Your task to perform on an android device: toggle data saver in the chrome app Image 0: 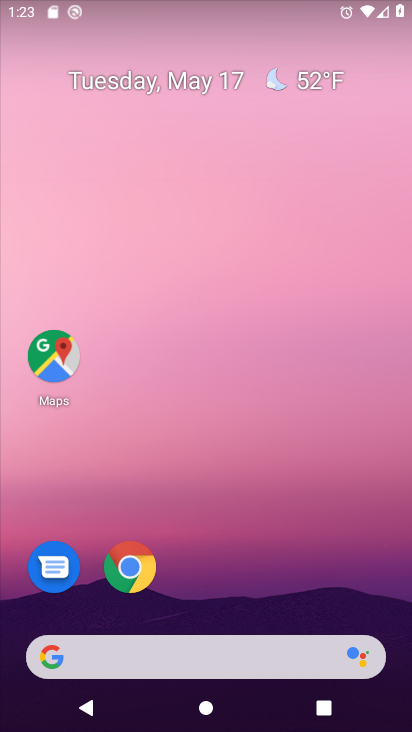
Step 0: click (138, 566)
Your task to perform on an android device: toggle data saver in the chrome app Image 1: 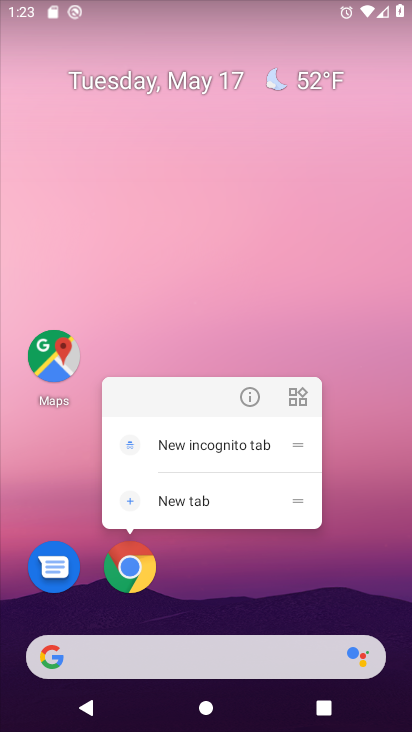
Step 1: click (118, 558)
Your task to perform on an android device: toggle data saver in the chrome app Image 2: 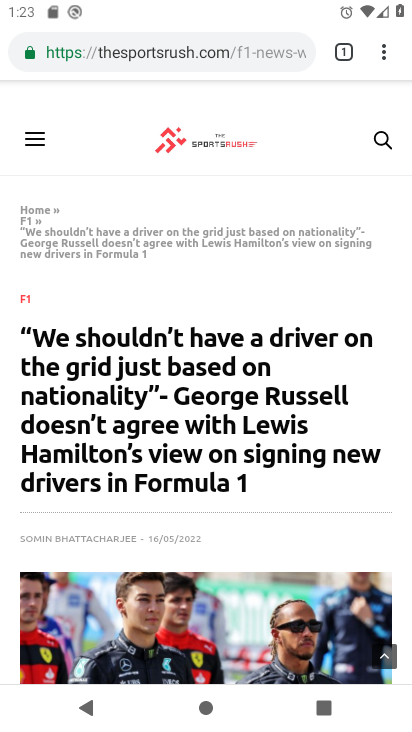
Step 2: click (385, 64)
Your task to perform on an android device: toggle data saver in the chrome app Image 3: 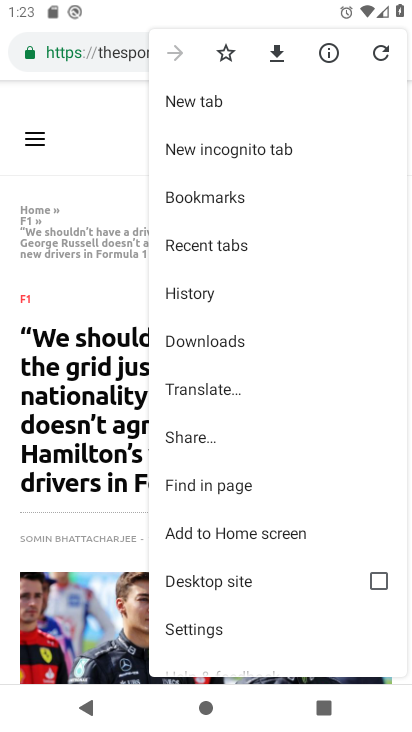
Step 3: click (194, 637)
Your task to perform on an android device: toggle data saver in the chrome app Image 4: 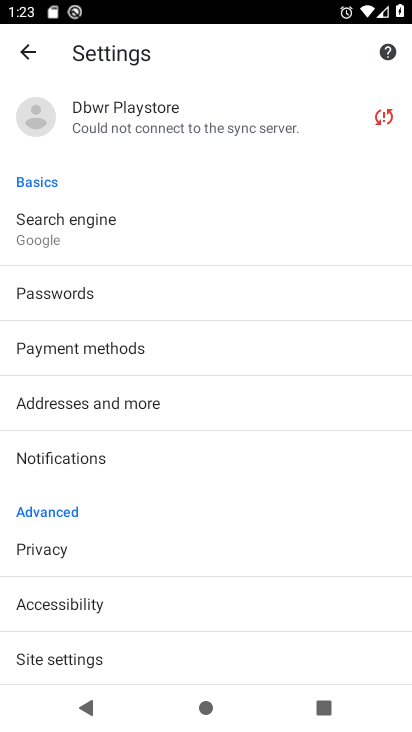
Step 4: drag from (82, 631) to (148, 264)
Your task to perform on an android device: toggle data saver in the chrome app Image 5: 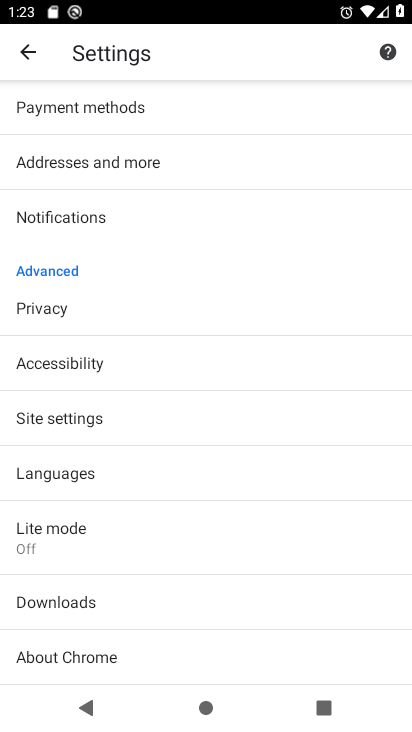
Step 5: click (53, 539)
Your task to perform on an android device: toggle data saver in the chrome app Image 6: 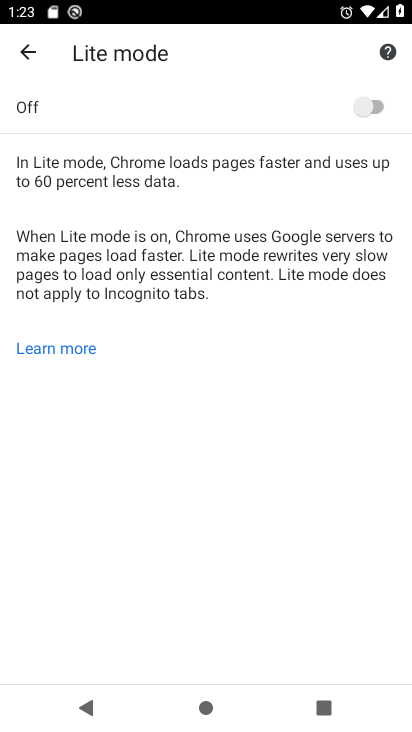
Step 6: click (376, 112)
Your task to perform on an android device: toggle data saver in the chrome app Image 7: 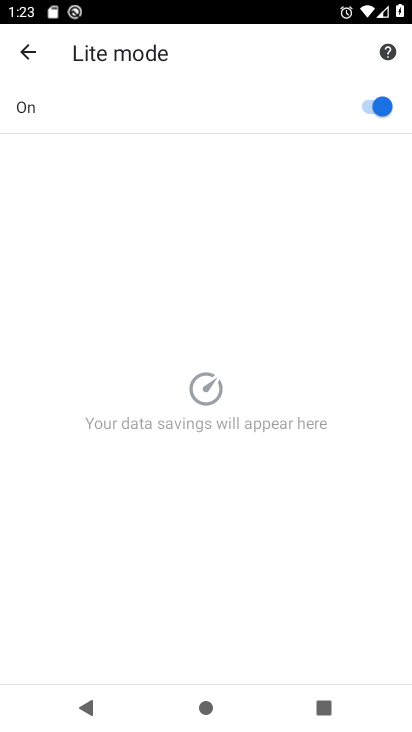
Step 7: task complete